Your task to perform on an android device: refresh tabs in the chrome app Image 0: 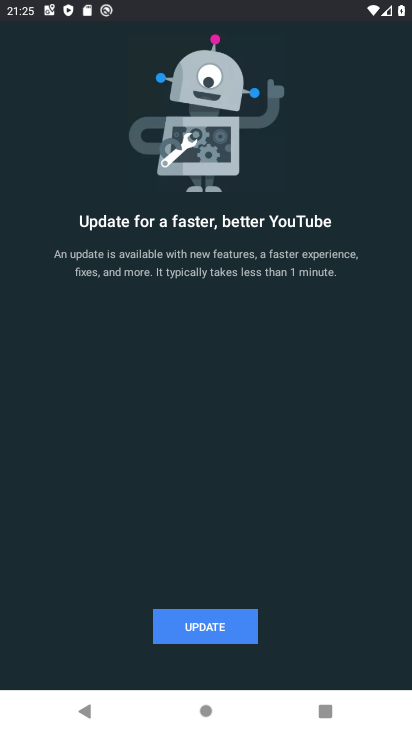
Step 0: press back button
Your task to perform on an android device: refresh tabs in the chrome app Image 1: 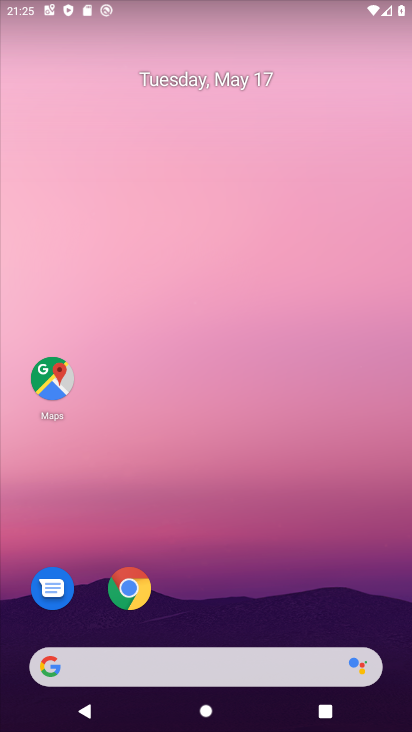
Step 1: drag from (197, 653) to (164, 40)
Your task to perform on an android device: refresh tabs in the chrome app Image 2: 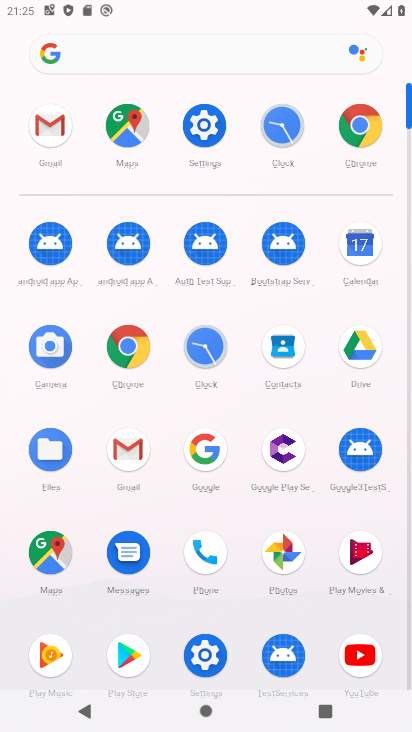
Step 2: click (363, 113)
Your task to perform on an android device: refresh tabs in the chrome app Image 3: 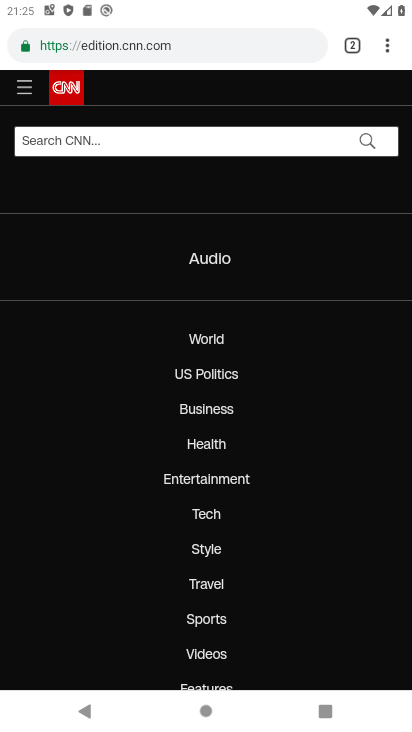
Step 3: click (387, 58)
Your task to perform on an android device: refresh tabs in the chrome app Image 4: 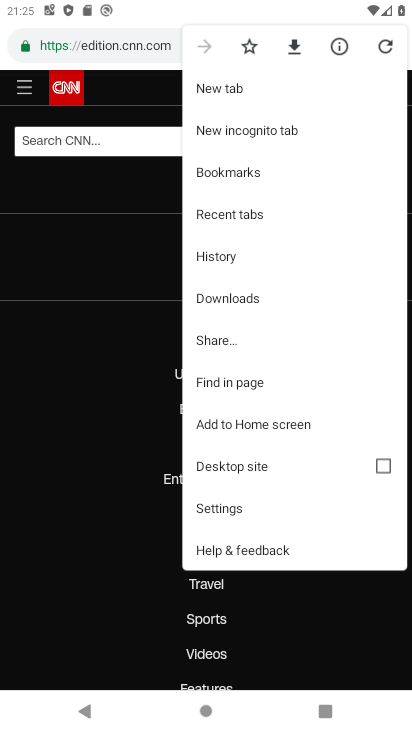
Step 4: click (381, 45)
Your task to perform on an android device: refresh tabs in the chrome app Image 5: 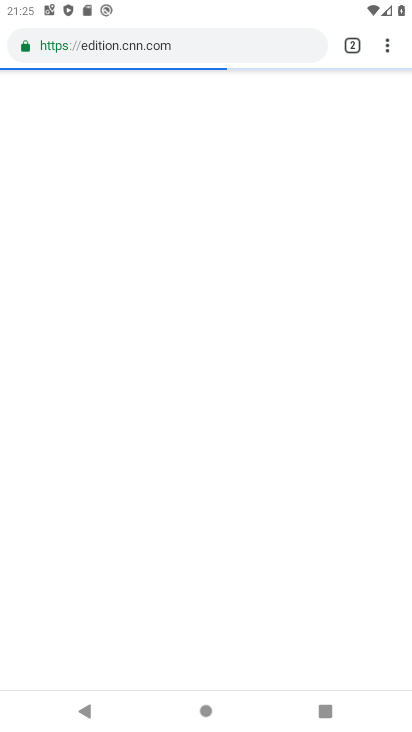
Step 5: task complete